Your task to perform on an android device: change the clock display to digital Image 0: 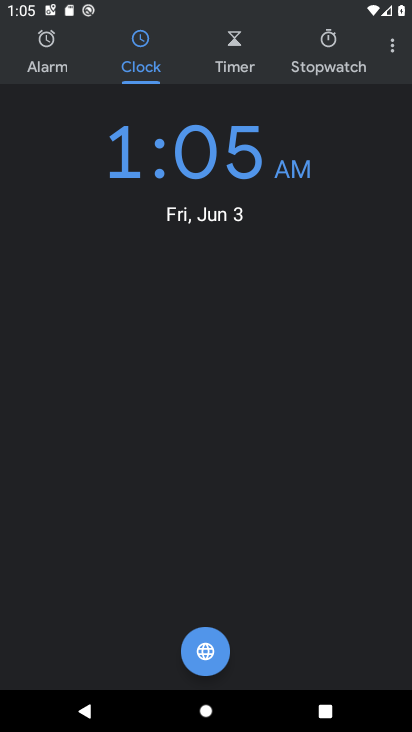
Step 0: click (396, 45)
Your task to perform on an android device: change the clock display to digital Image 1: 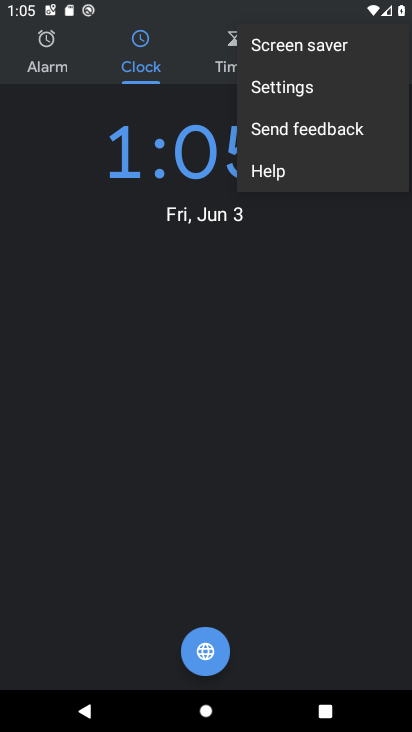
Step 1: click (282, 95)
Your task to perform on an android device: change the clock display to digital Image 2: 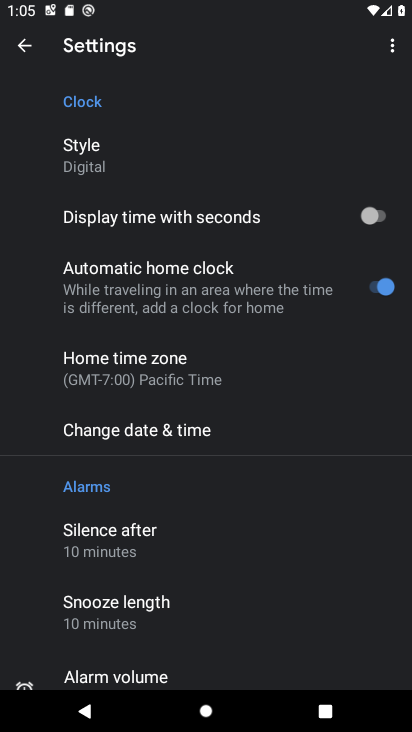
Step 2: task complete